Your task to perform on an android device: Turn off the flashlight Image 0: 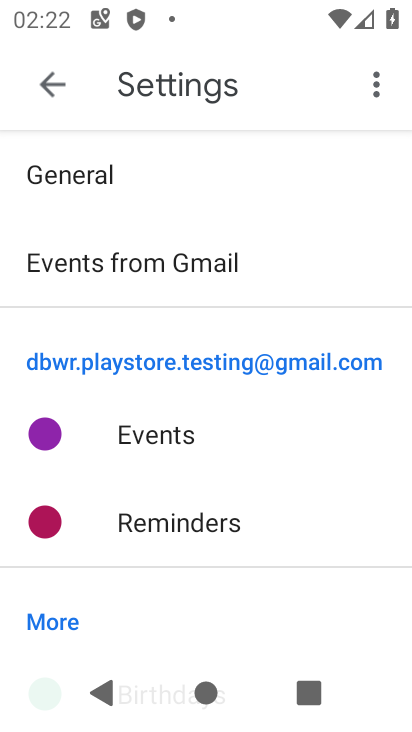
Step 0: press home button
Your task to perform on an android device: Turn off the flashlight Image 1: 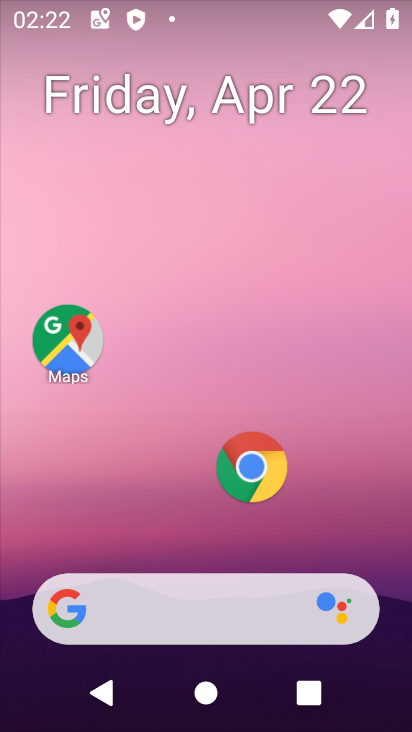
Step 1: drag from (205, 552) to (211, 223)
Your task to perform on an android device: Turn off the flashlight Image 2: 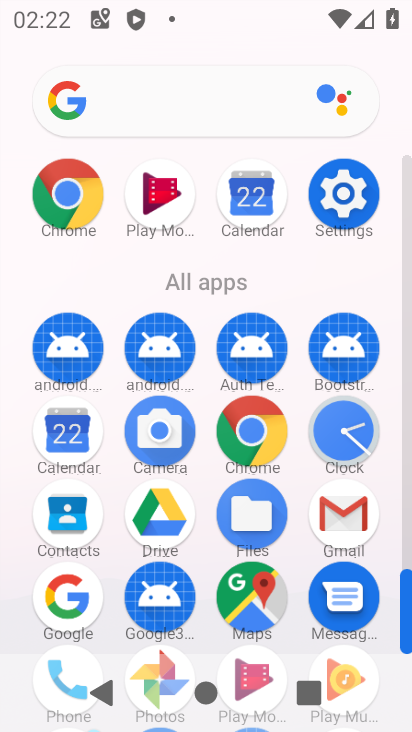
Step 2: click (350, 198)
Your task to perform on an android device: Turn off the flashlight Image 3: 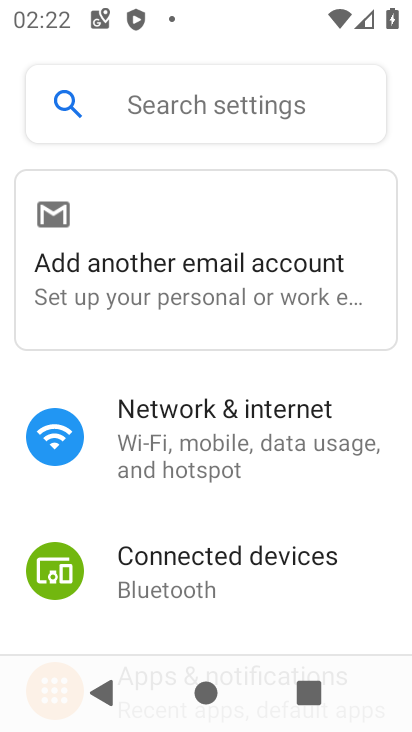
Step 3: drag from (135, 620) to (167, 345)
Your task to perform on an android device: Turn off the flashlight Image 4: 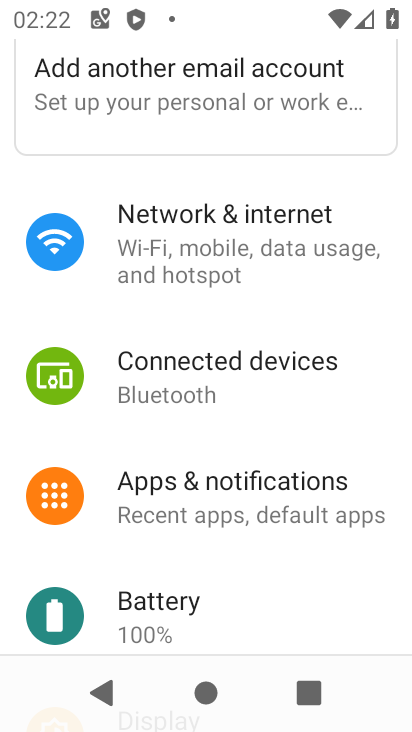
Step 4: drag from (240, 605) to (259, 302)
Your task to perform on an android device: Turn off the flashlight Image 5: 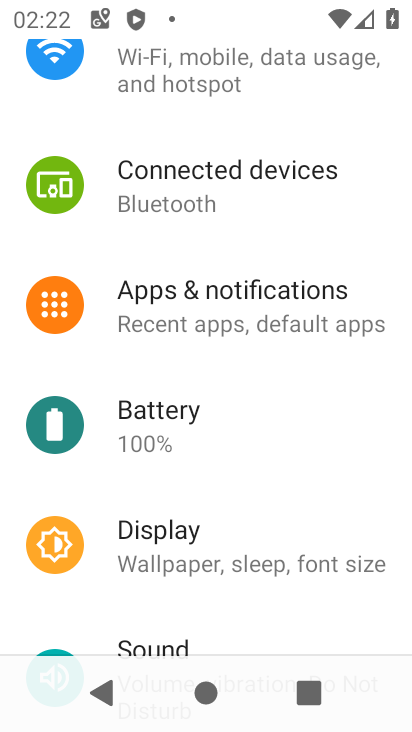
Step 5: drag from (249, 593) to (249, 403)
Your task to perform on an android device: Turn off the flashlight Image 6: 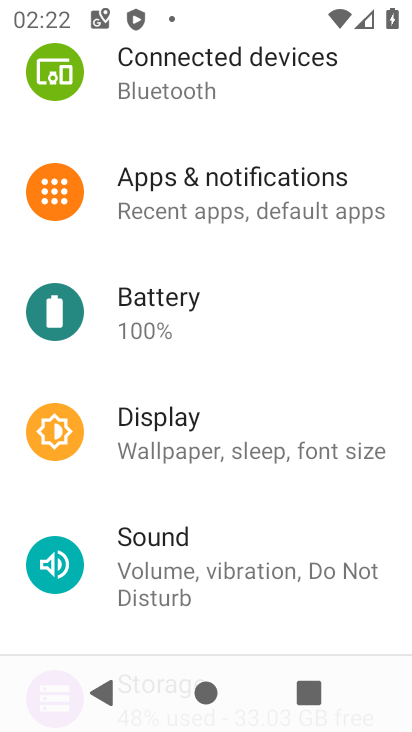
Step 6: click (216, 444)
Your task to perform on an android device: Turn off the flashlight Image 7: 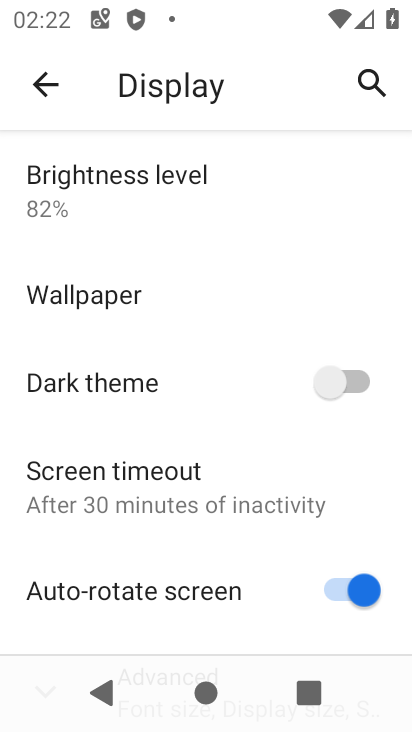
Step 7: task complete